Your task to perform on an android device: see tabs open on other devices in the chrome app Image 0: 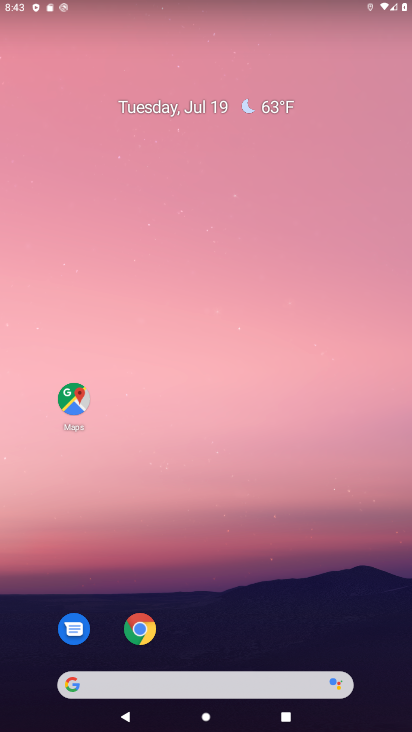
Step 0: click (137, 623)
Your task to perform on an android device: see tabs open on other devices in the chrome app Image 1: 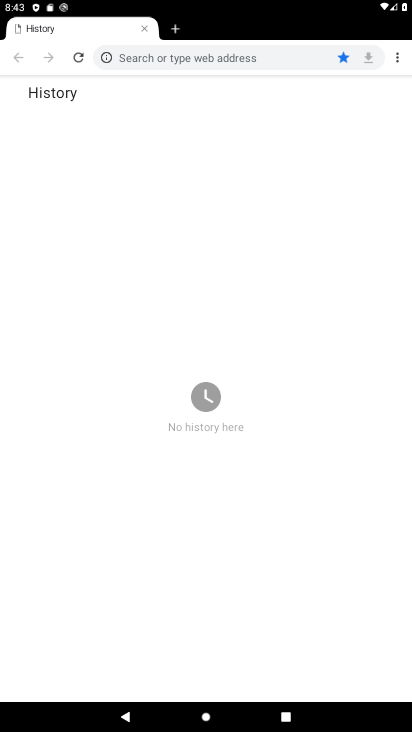
Step 1: click (393, 59)
Your task to perform on an android device: see tabs open on other devices in the chrome app Image 2: 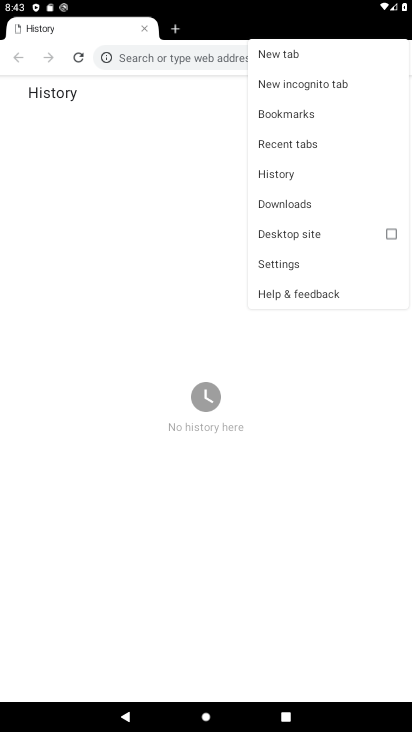
Step 2: click (317, 140)
Your task to perform on an android device: see tabs open on other devices in the chrome app Image 3: 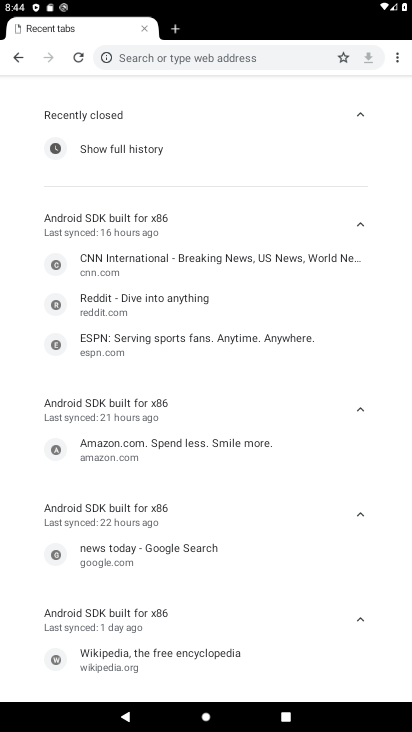
Step 3: task complete